Your task to perform on an android device: Open CNN.com Image 0: 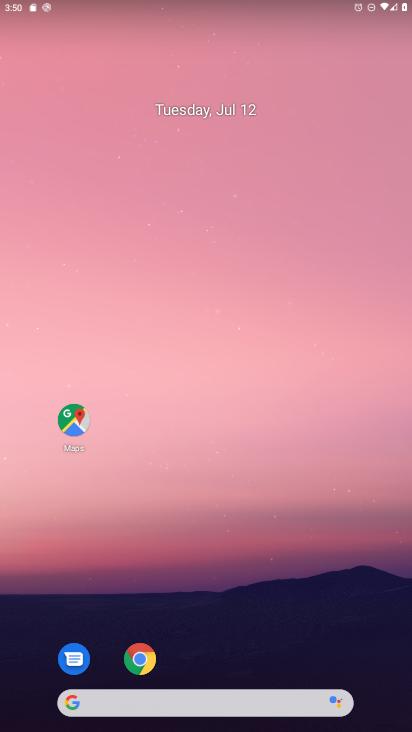
Step 0: drag from (202, 104) to (167, 3)
Your task to perform on an android device: Open CNN.com Image 1: 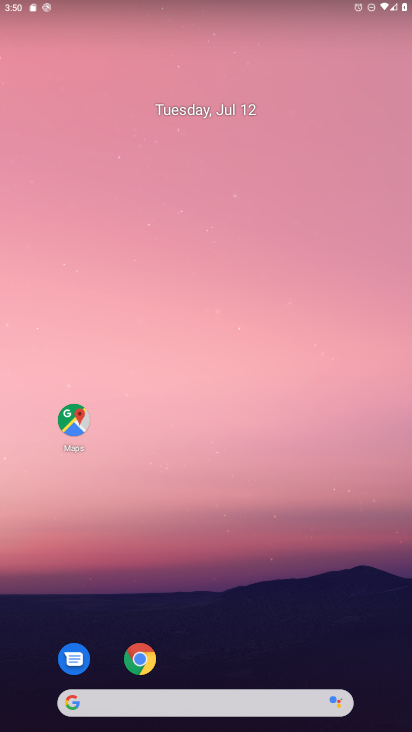
Step 1: drag from (185, 280) to (187, 73)
Your task to perform on an android device: Open CNN.com Image 2: 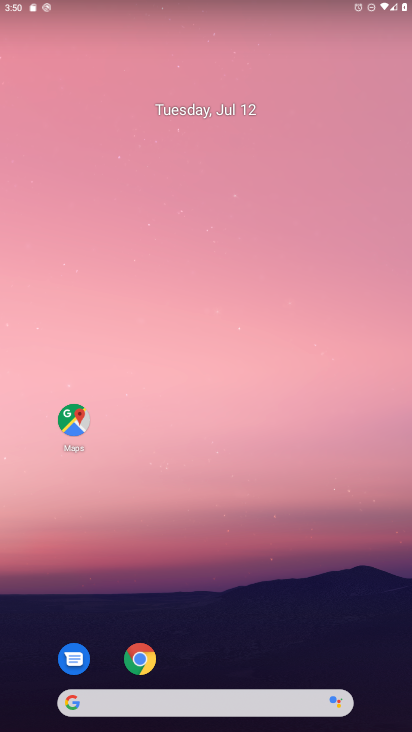
Step 2: click (131, 667)
Your task to perform on an android device: Open CNN.com Image 3: 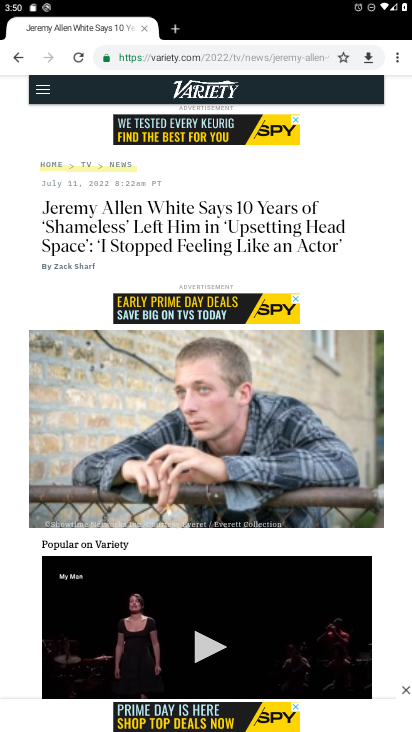
Step 3: click (21, 59)
Your task to perform on an android device: Open CNN.com Image 4: 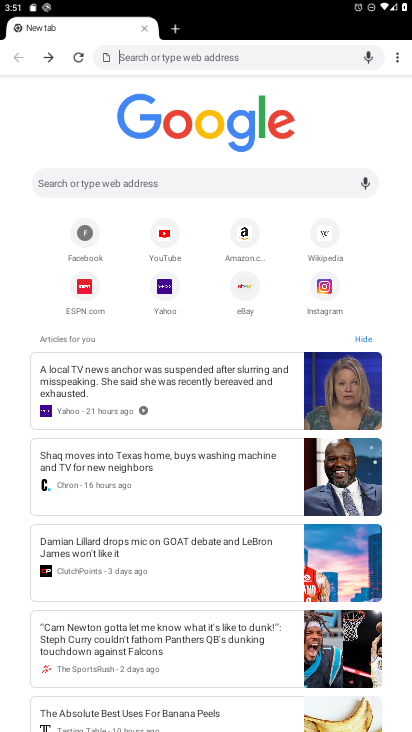
Step 4: click (261, 169)
Your task to perform on an android device: Open CNN.com Image 5: 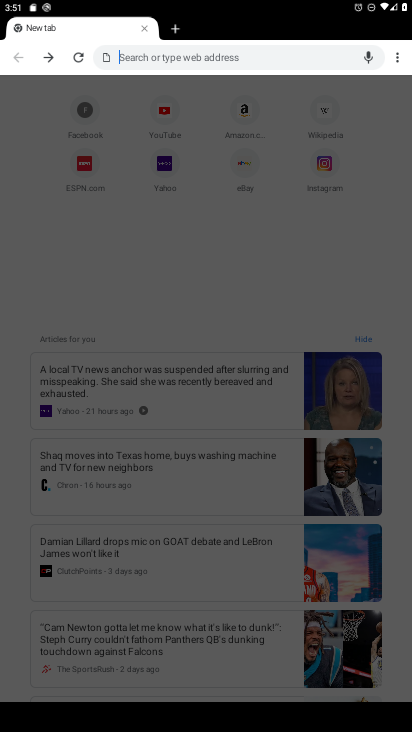
Step 5: type "www.cnn.com"
Your task to perform on an android device: Open CNN.com Image 6: 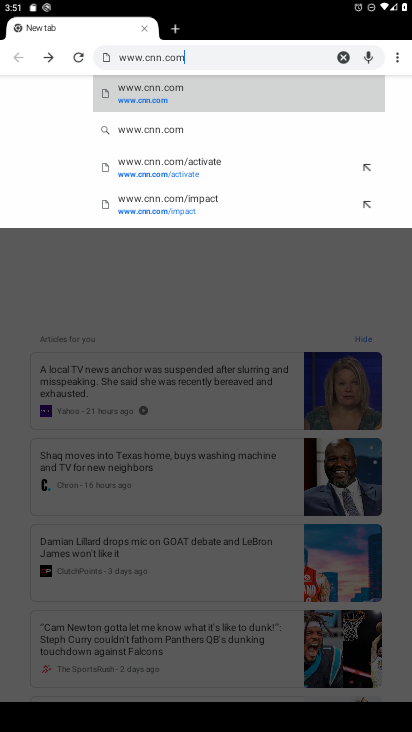
Step 6: click (136, 99)
Your task to perform on an android device: Open CNN.com Image 7: 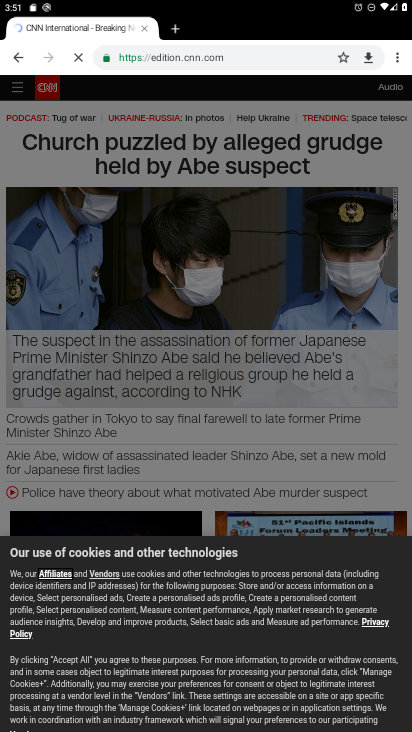
Step 7: task complete